Your task to perform on an android device: turn off data saver in the chrome app Image 0: 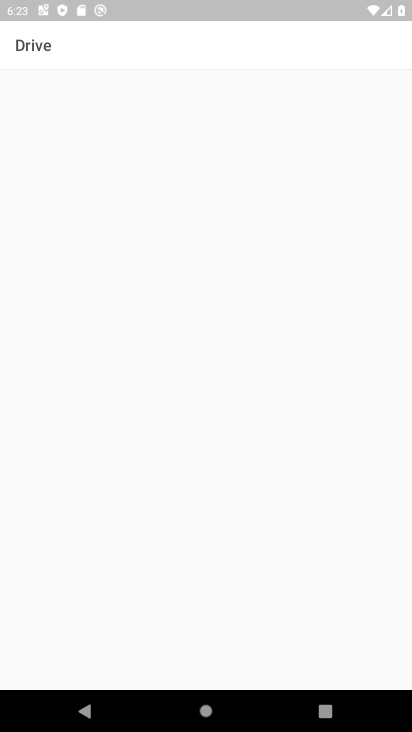
Step 0: press home button
Your task to perform on an android device: turn off data saver in the chrome app Image 1: 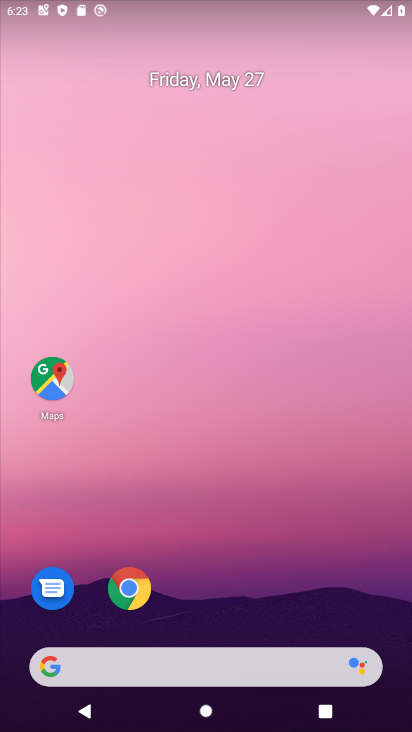
Step 1: click (137, 590)
Your task to perform on an android device: turn off data saver in the chrome app Image 2: 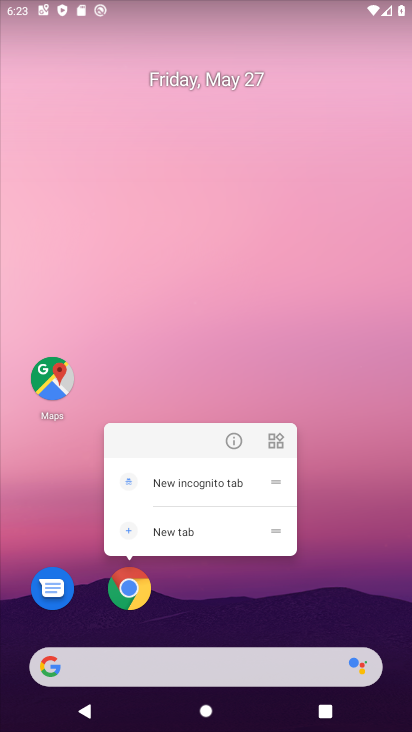
Step 2: click (246, 583)
Your task to perform on an android device: turn off data saver in the chrome app Image 3: 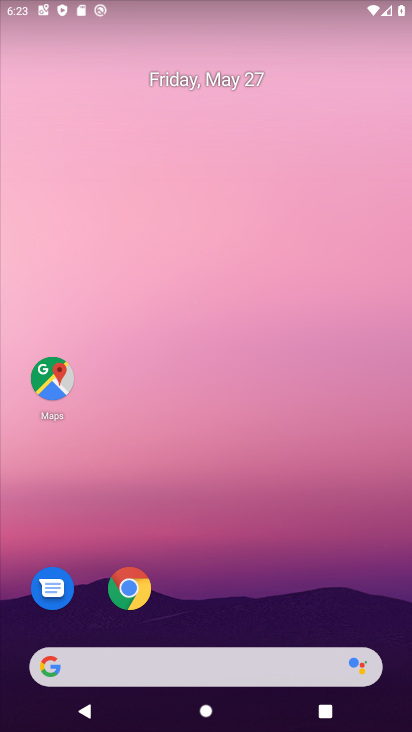
Step 3: drag from (299, 587) to (293, 98)
Your task to perform on an android device: turn off data saver in the chrome app Image 4: 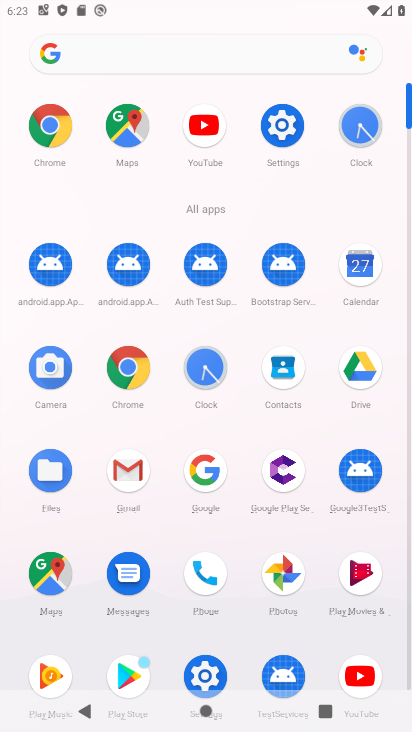
Step 4: click (133, 366)
Your task to perform on an android device: turn off data saver in the chrome app Image 5: 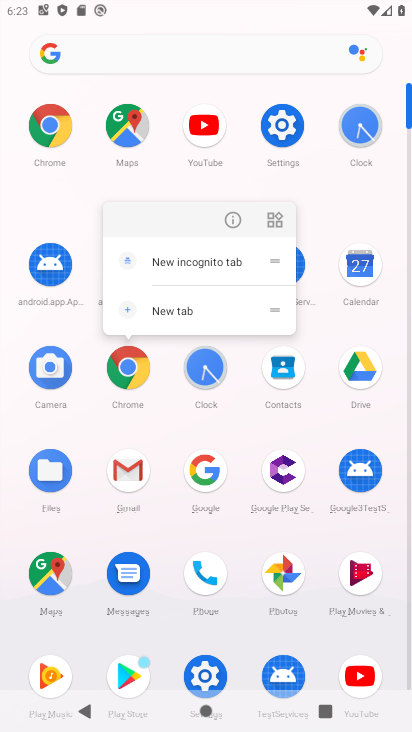
Step 5: click (124, 365)
Your task to perform on an android device: turn off data saver in the chrome app Image 6: 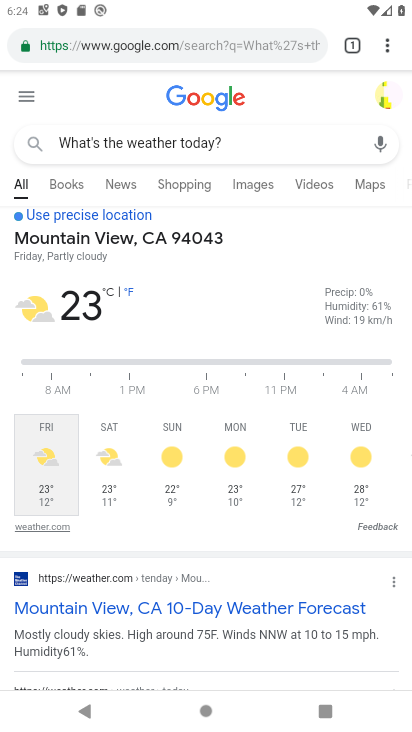
Step 6: drag from (379, 43) to (231, 502)
Your task to perform on an android device: turn off data saver in the chrome app Image 7: 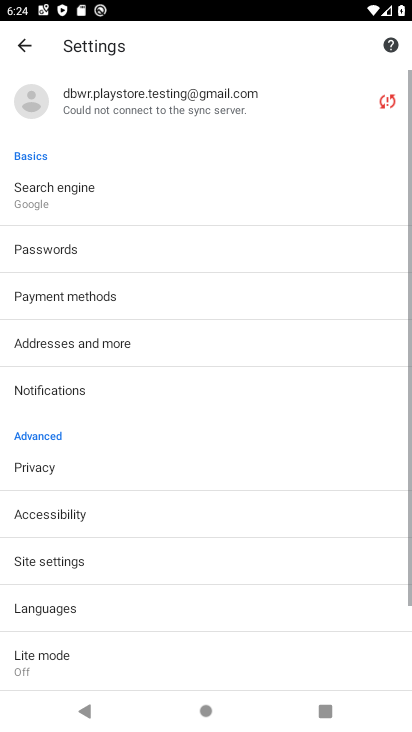
Step 7: drag from (200, 610) to (215, 183)
Your task to perform on an android device: turn off data saver in the chrome app Image 8: 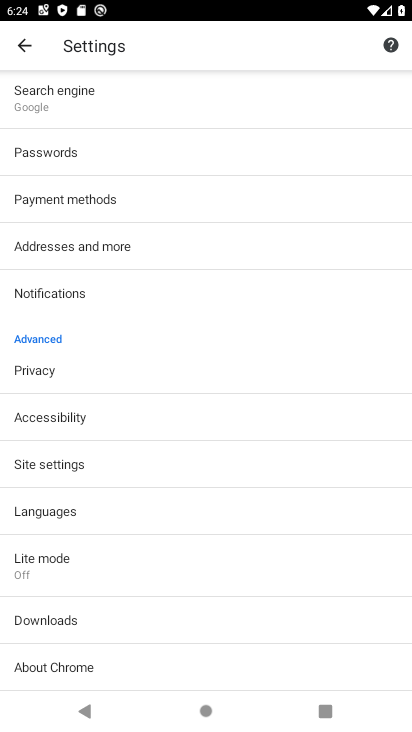
Step 8: click (39, 550)
Your task to perform on an android device: turn off data saver in the chrome app Image 9: 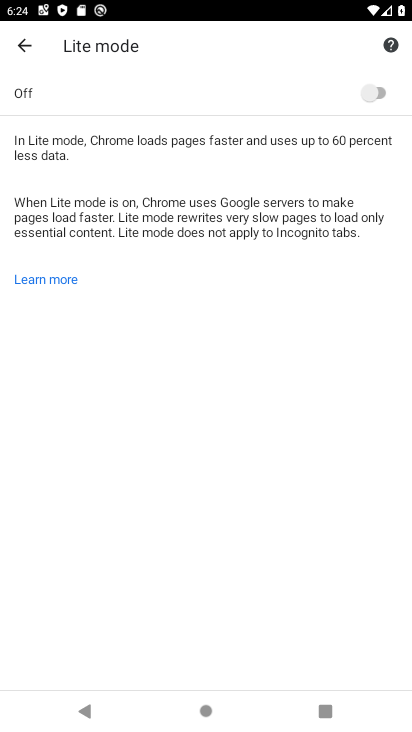
Step 9: task complete